Your task to perform on an android device: Turn off the flashlight Image 0: 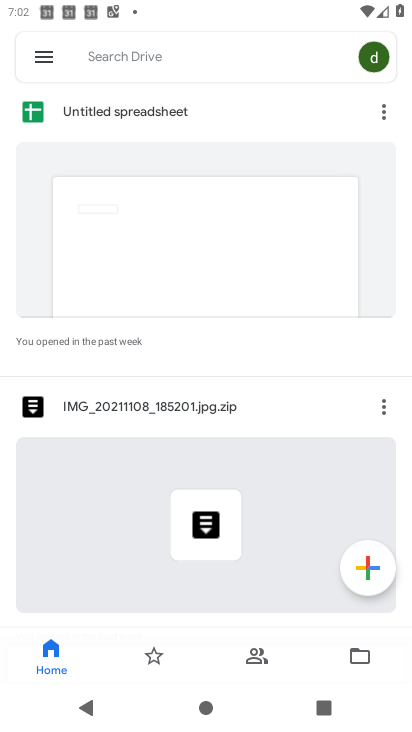
Step 0: press home button
Your task to perform on an android device: Turn off the flashlight Image 1: 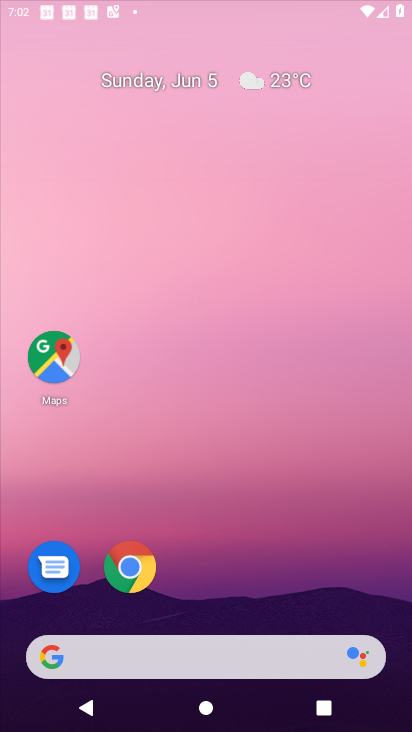
Step 1: drag from (390, 635) to (279, 24)
Your task to perform on an android device: Turn off the flashlight Image 2: 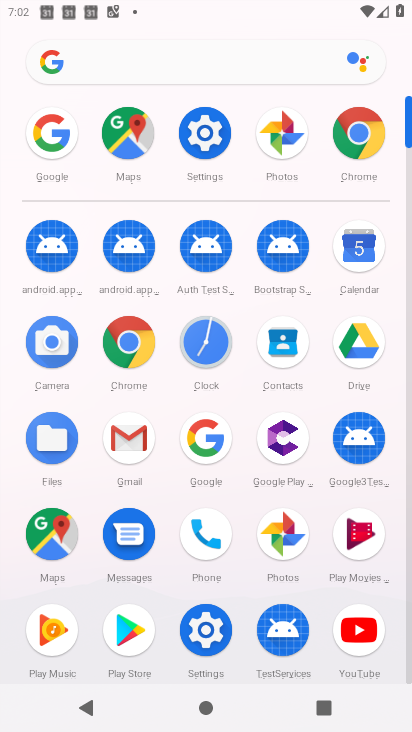
Step 2: click (191, 153)
Your task to perform on an android device: Turn off the flashlight Image 3: 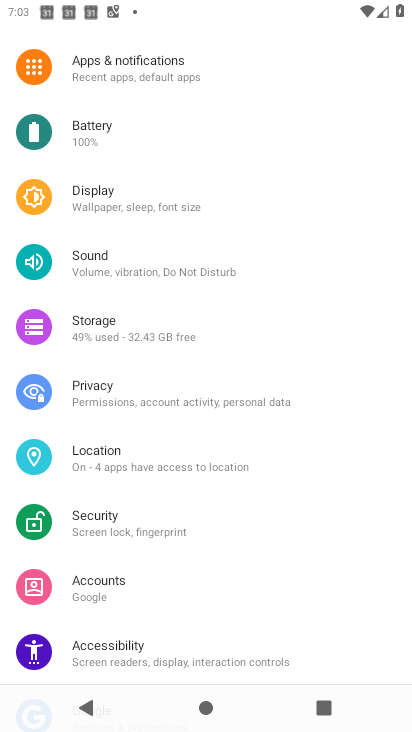
Step 3: task complete